Your task to perform on an android device: open a bookmark in the chrome app Image 0: 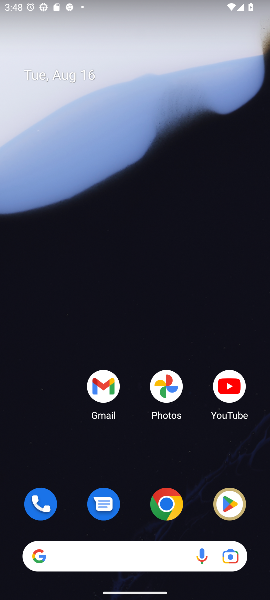
Step 0: click (158, 505)
Your task to perform on an android device: open a bookmark in the chrome app Image 1: 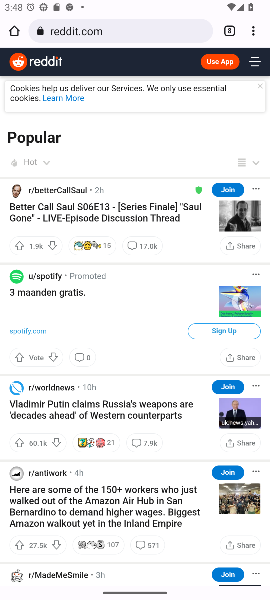
Step 1: click (254, 26)
Your task to perform on an android device: open a bookmark in the chrome app Image 2: 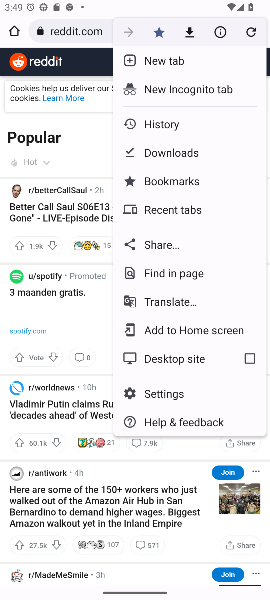
Step 2: click (167, 177)
Your task to perform on an android device: open a bookmark in the chrome app Image 3: 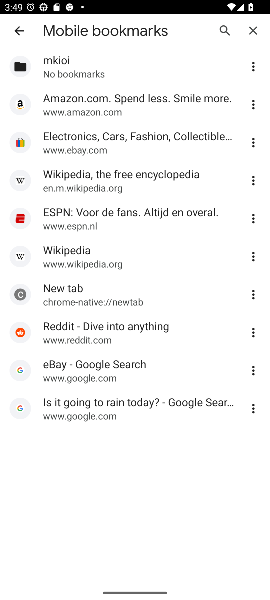
Step 3: task complete